Your task to perform on an android device: read, delete, or share a saved page in the chrome app Image 0: 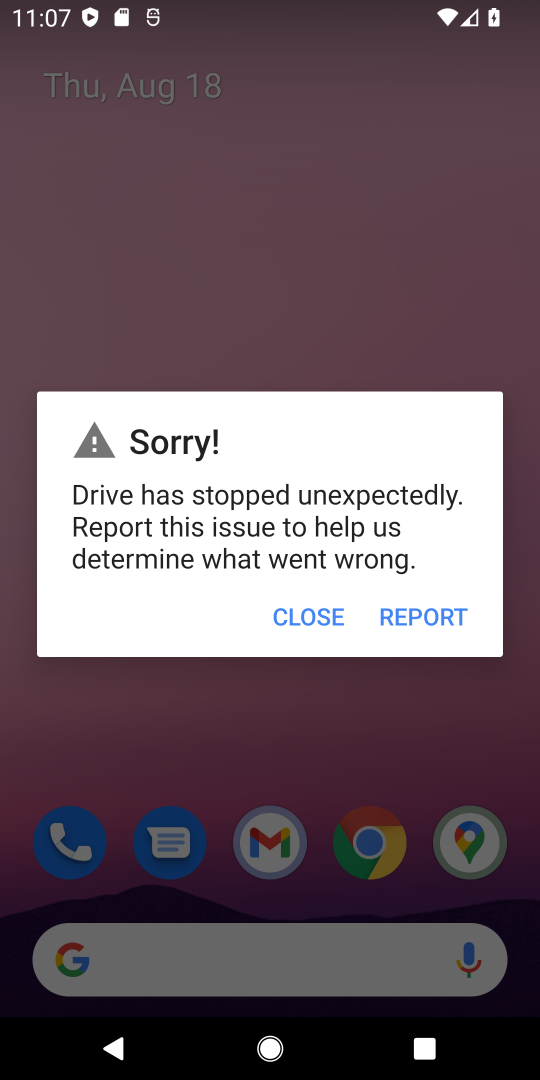
Step 0: click (326, 612)
Your task to perform on an android device: read, delete, or share a saved page in the chrome app Image 1: 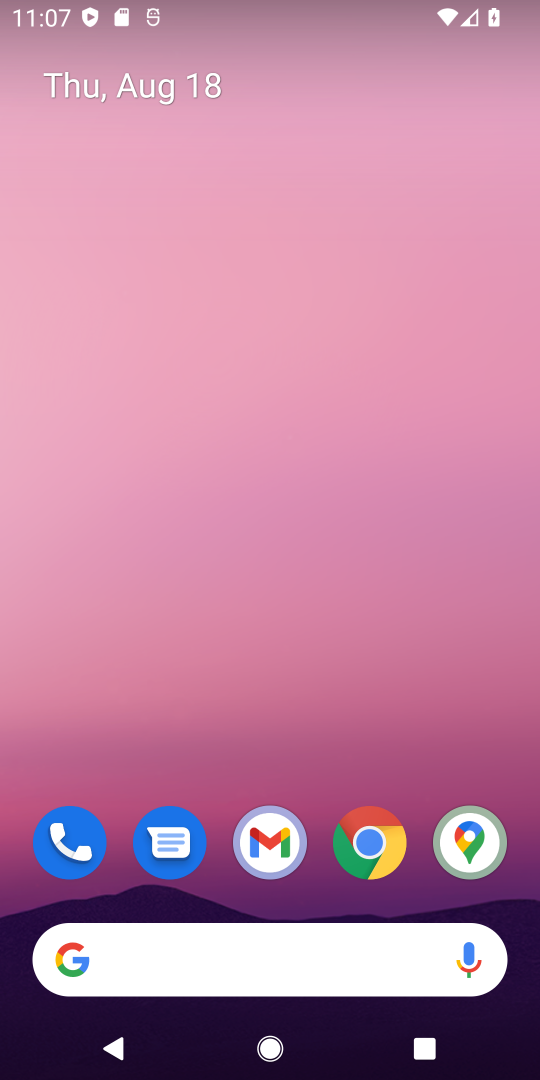
Step 1: click (350, 849)
Your task to perform on an android device: read, delete, or share a saved page in the chrome app Image 2: 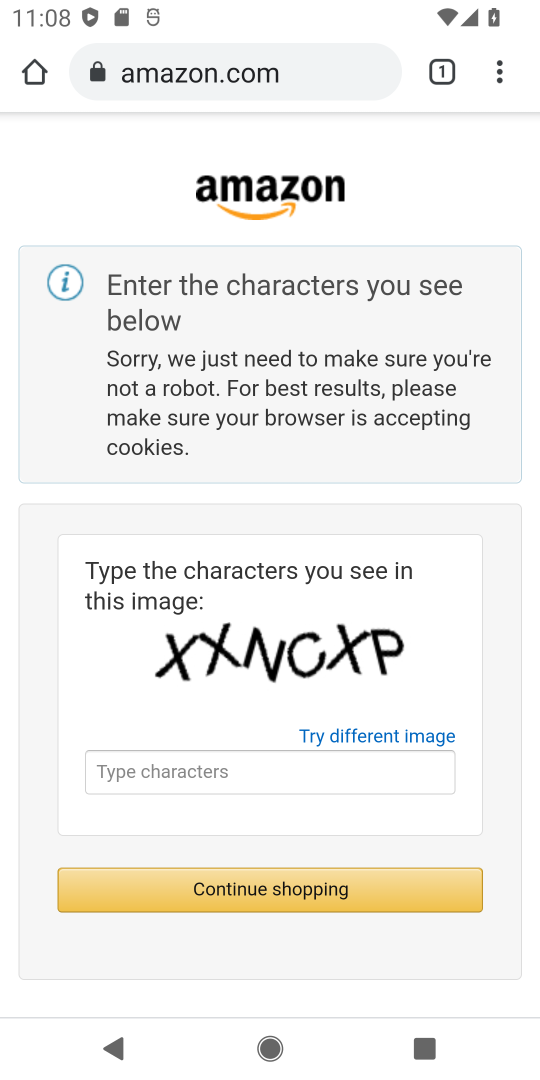
Step 2: click (496, 67)
Your task to perform on an android device: read, delete, or share a saved page in the chrome app Image 3: 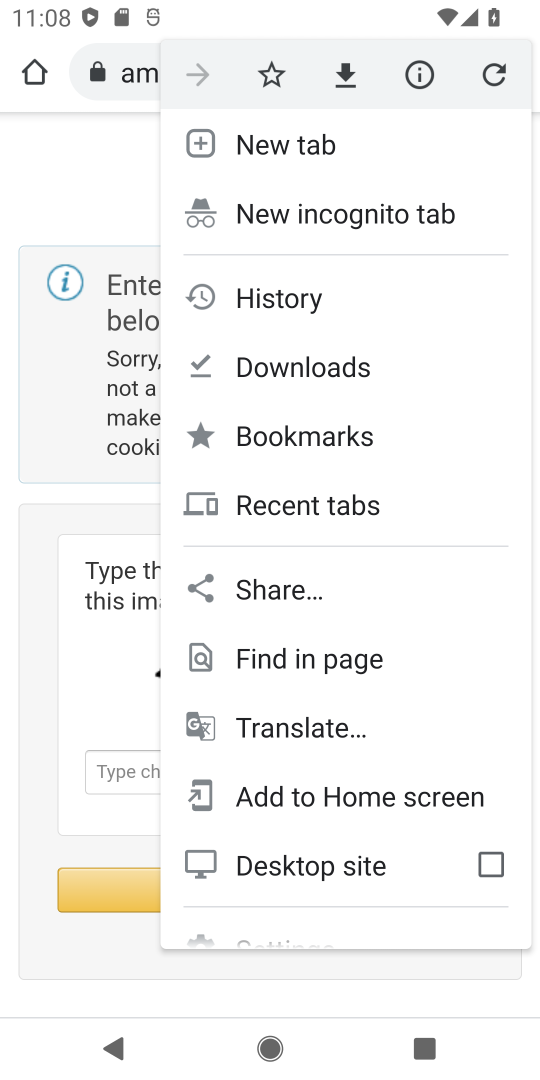
Step 3: click (294, 933)
Your task to perform on an android device: read, delete, or share a saved page in the chrome app Image 4: 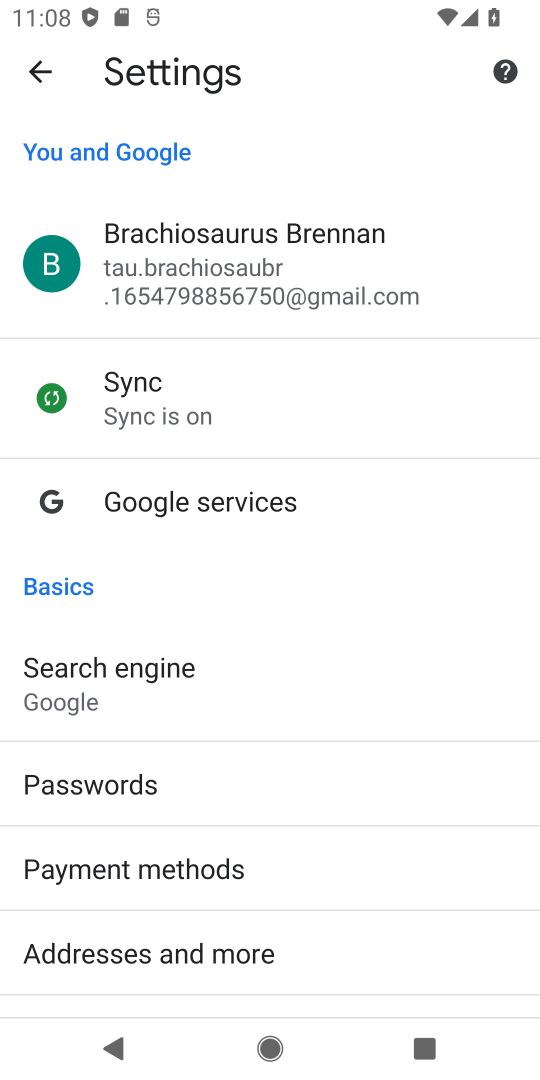
Step 4: drag from (294, 933) to (307, 360)
Your task to perform on an android device: read, delete, or share a saved page in the chrome app Image 5: 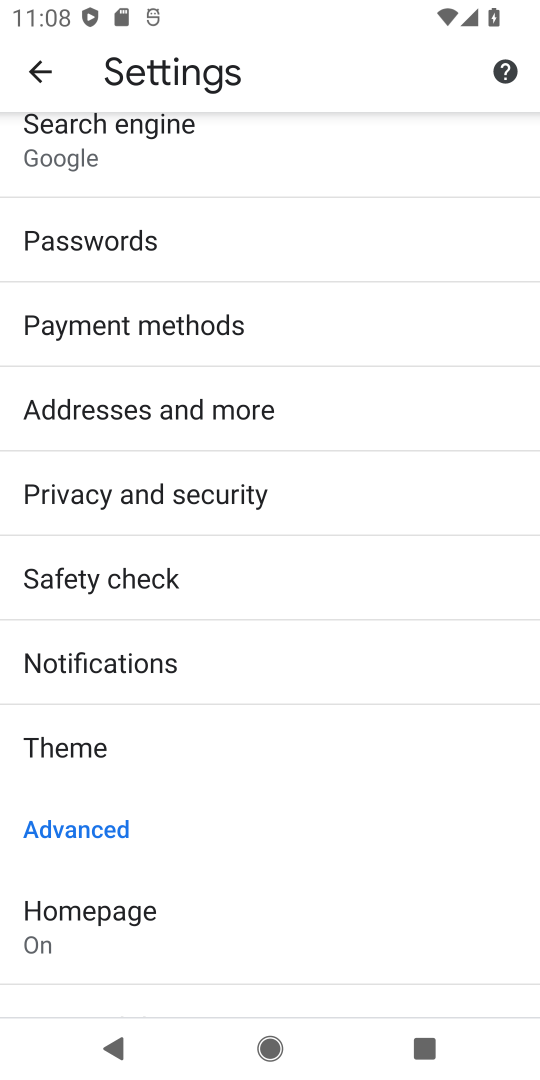
Step 5: drag from (192, 174) to (431, 806)
Your task to perform on an android device: read, delete, or share a saved page in the chrome app Image 6: 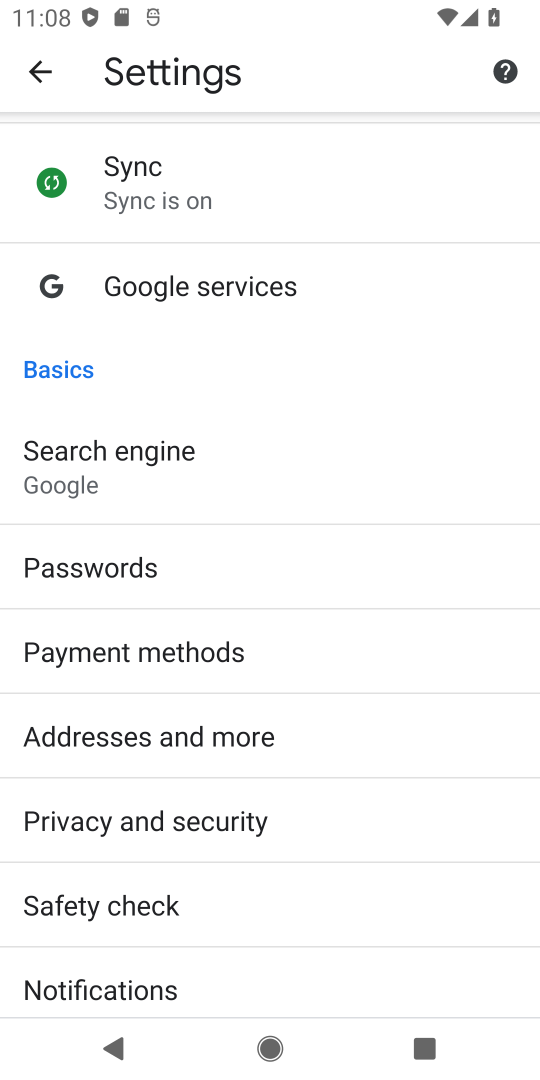
Step 6: drag from (310, 232) to (485, 1061)
Your task to perform on an android device: read, delete, or share a saved page in the chrome app Image 7: 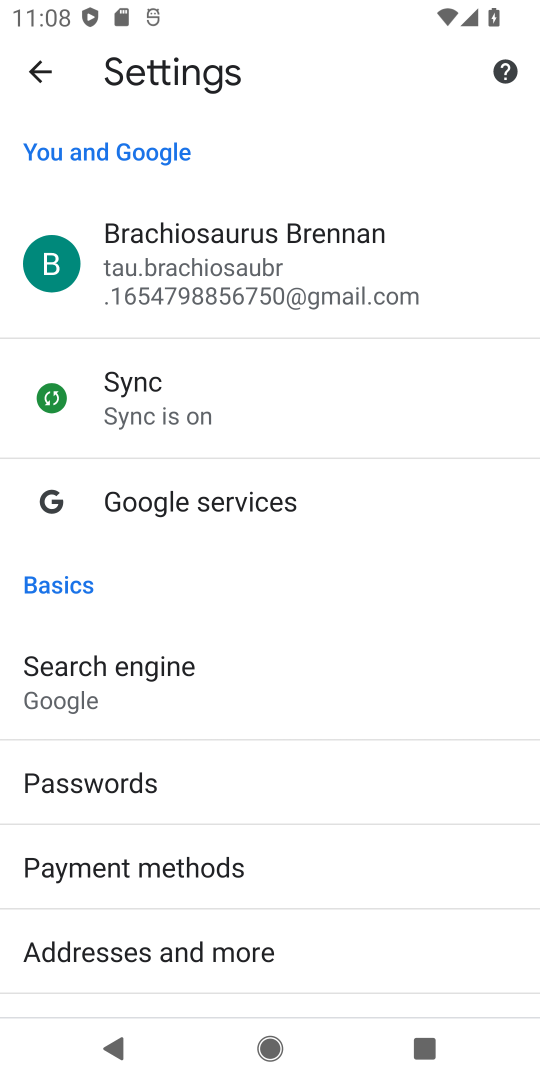
Step 7: click (53, 82)
Your task to perform on an android device: read, delete, or share a saved page in the chrome app Image 8: 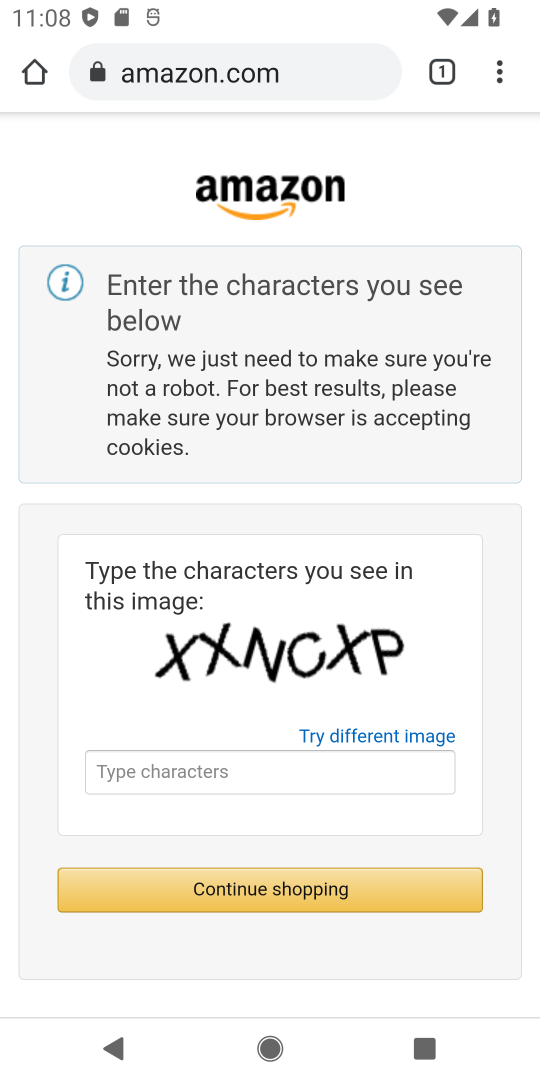
Step 8: task complete